Your task to perform on an android device: toggle show notifications on the lock screen Image 0: 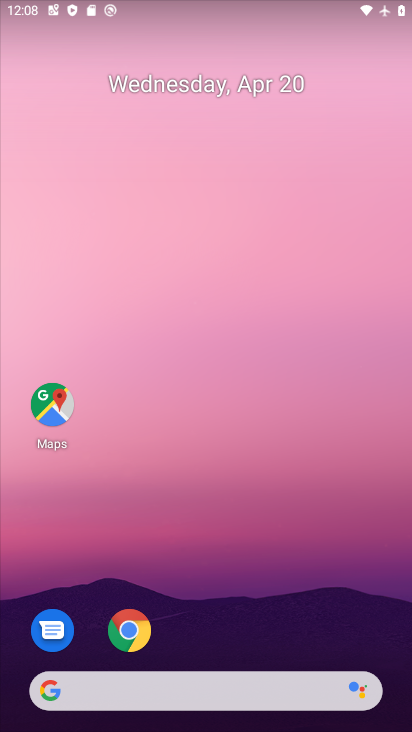
Step 0: drag from (213, 685) to (390, 142)
Your task to perform on an android device: toggle show notifications on the lock screen Image 1: 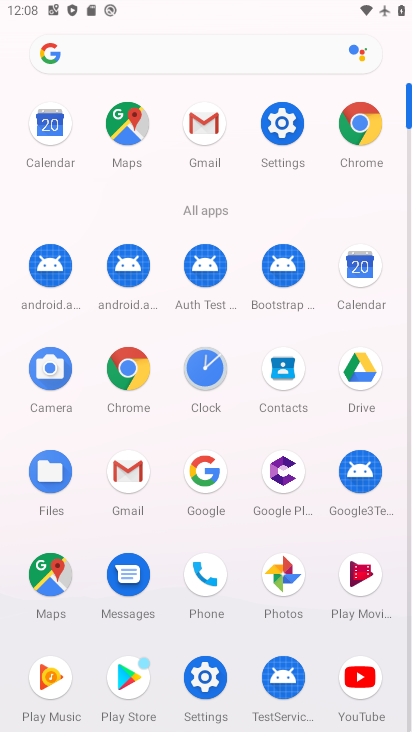
Step 1: click (285, 129)
Your task to perform on an android device: toggle show notifications on the lock screen Image 2: 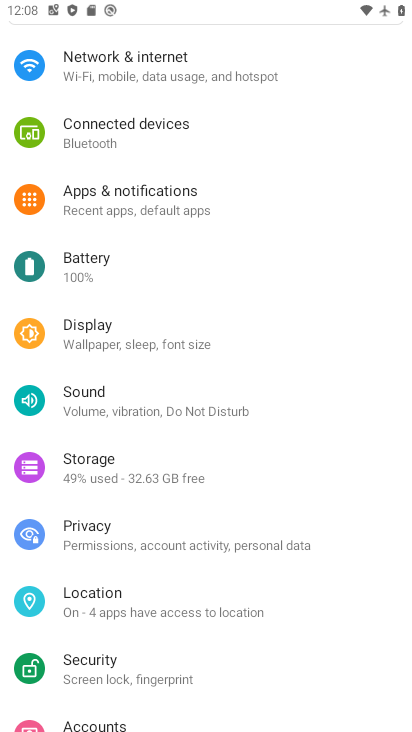
Step 2: click (170, 194)
Your task to perform on an android device: toggle show notifications on the lock screen Image 3: 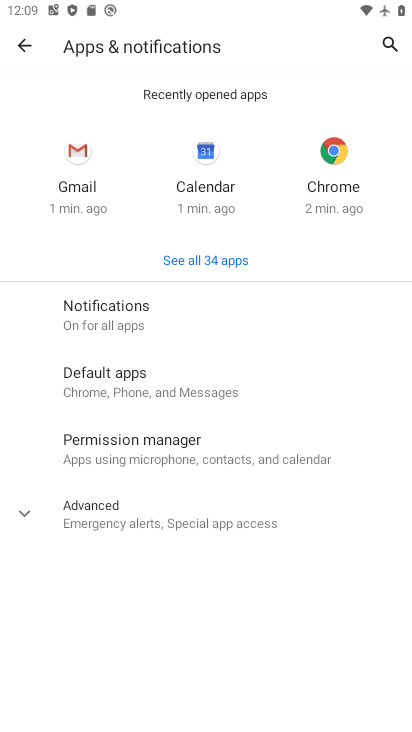
Step 3: click (137, 311)
Your task to perform on an android device: toggle show notifications on the lock screen Image 4: 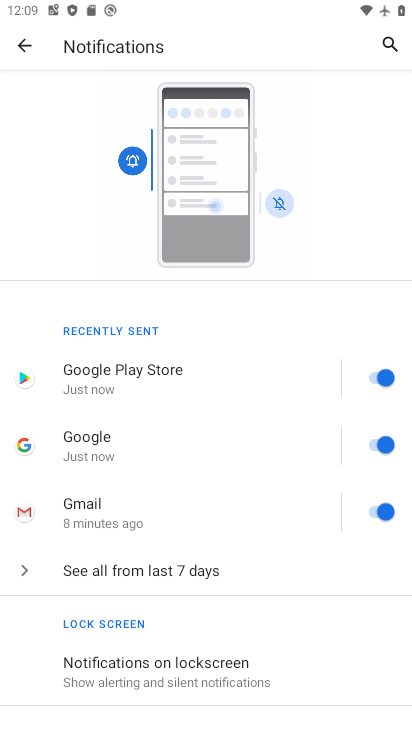
Step 4: drag from (193, 610) to (367, 351)
Your task to perform on an android device: toggle show notifications on the lock screen Image 5: 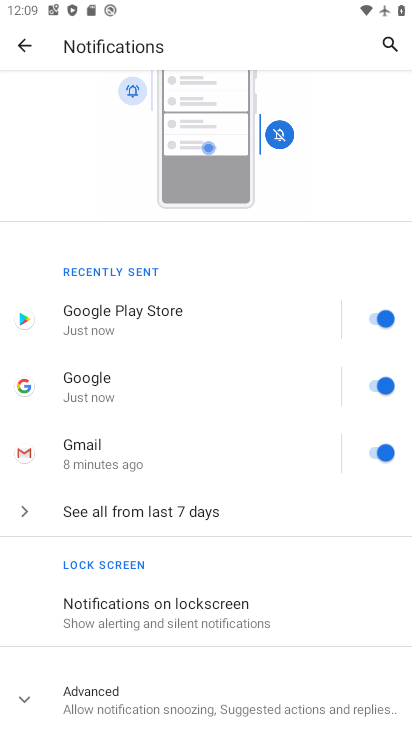
Step 5: click (211, 608)
Your task to perform on an android device: toggle show notifications on the lock screen Image 6: 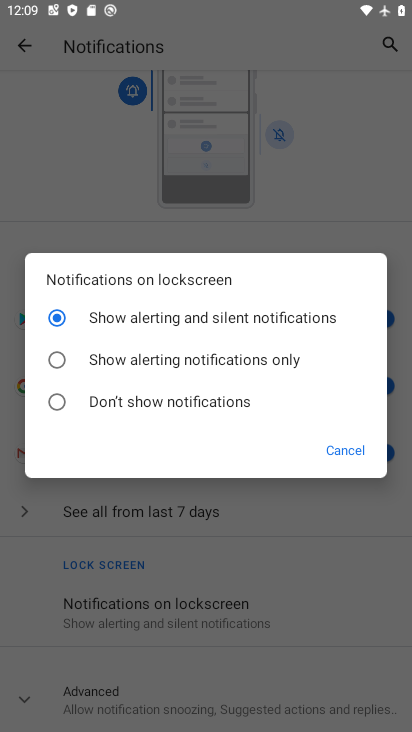
Step 6: click (57, 400)
Your task to perform on an android device: toggle show notifications on the lock screen Image 7: 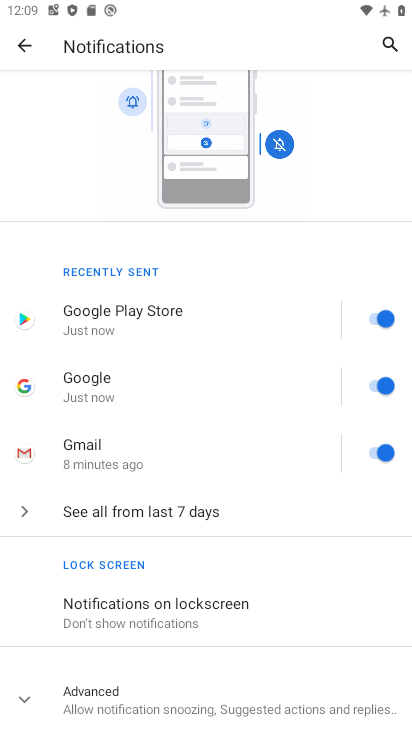
Step 7: task complete